Your task to perform on an android device: open a bookmark in the chrome app Image 0: 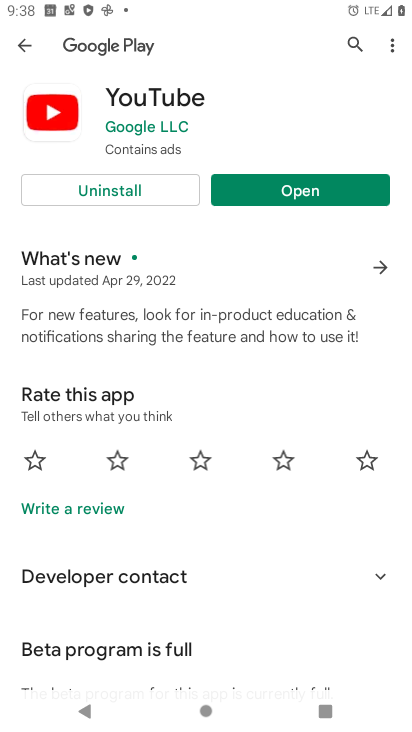
Step 0: press home button
Your task to perform on an android device: open a bookmark in the chrome app Image 1: 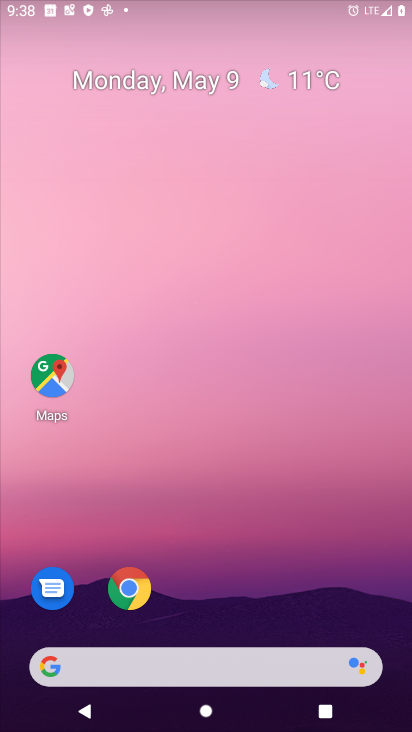
Step 1: drag from (365, 621) to (237, 44)
Your task to perform on an android device: open a bookmark in the chrome app Image 2: 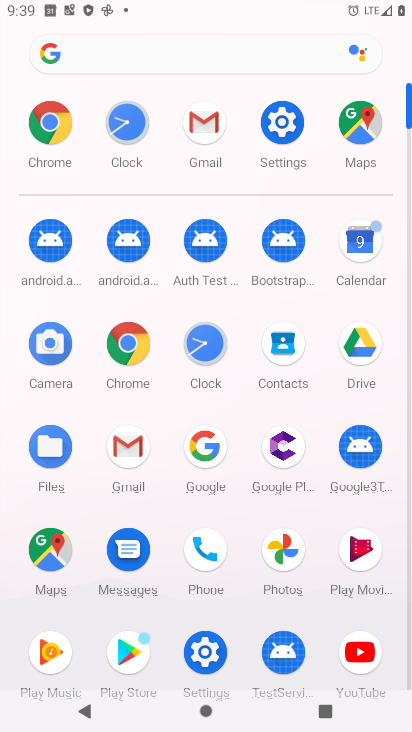
Step 2: click (120, 366)
Your task to perform on an android device: open a bookmark in the chrome app Image 3: 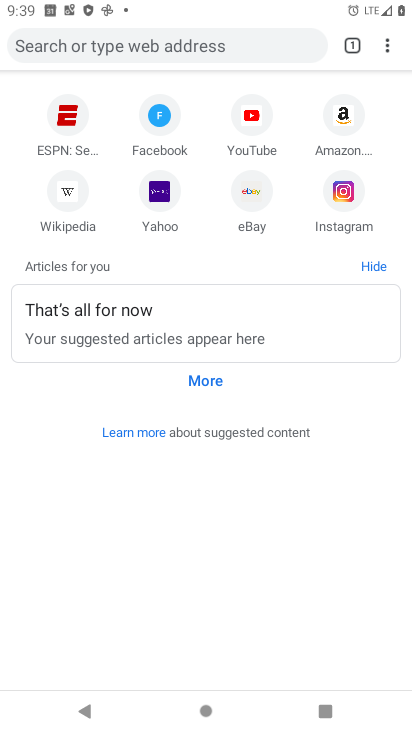
Step 3: click (383, 44)
Your task to perform on an android device: open a bookmark in the chrome app Image 4: 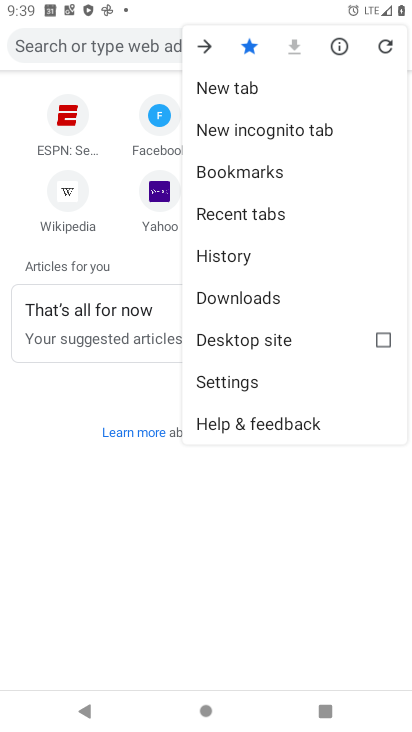
Step 4: click (275, 185)
Your task to perform on an android device: open a bookmark in the chrome app Image 5: 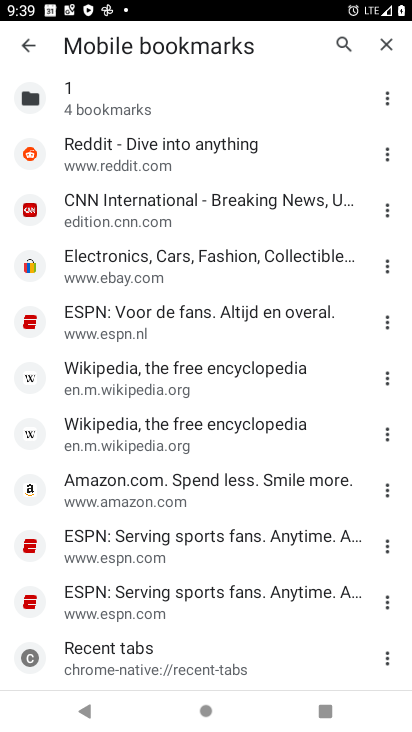
Step 5: task complete